Your task to perform on an android device: Open Google Chrome and click the shortcut for Amazon.com Image 0: 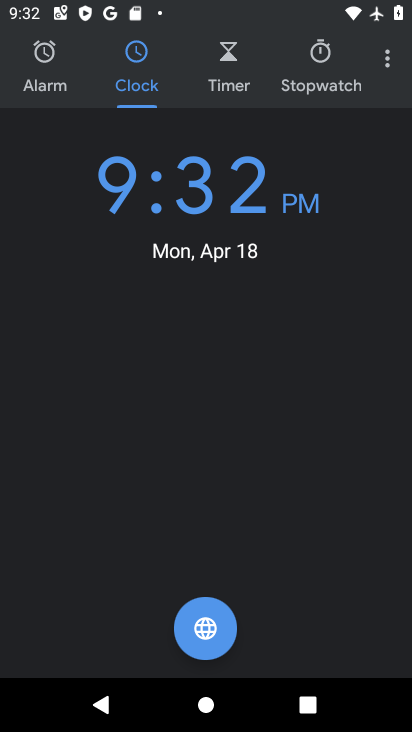
Step 0: press home button
Your task to perform on an android device: Open Google Chrome and click the shortcut for Amazon.com Image 1: 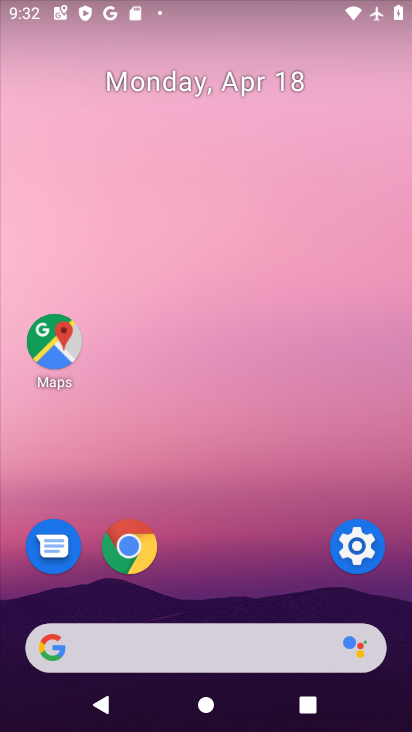
Step 1: click (125, 558)
Your task to perform on an android device: Open Google Chrome and click the shortcut for Amazon.com Image 2: 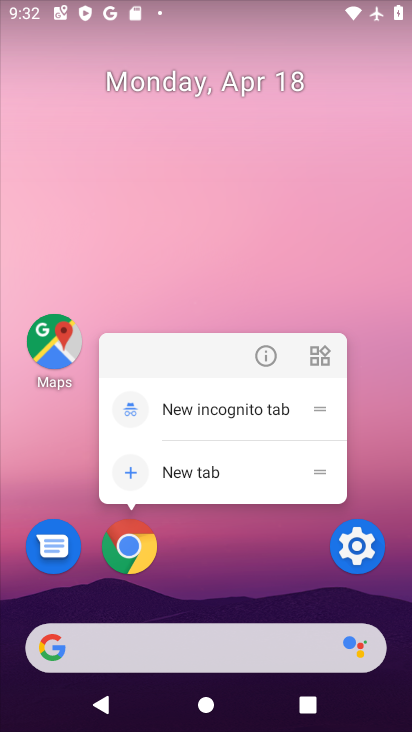
Step 2: click (133, 560)
Your task to perform on an android device: Open Google Chrome and click the shortcut for Amazon.com Image 3: 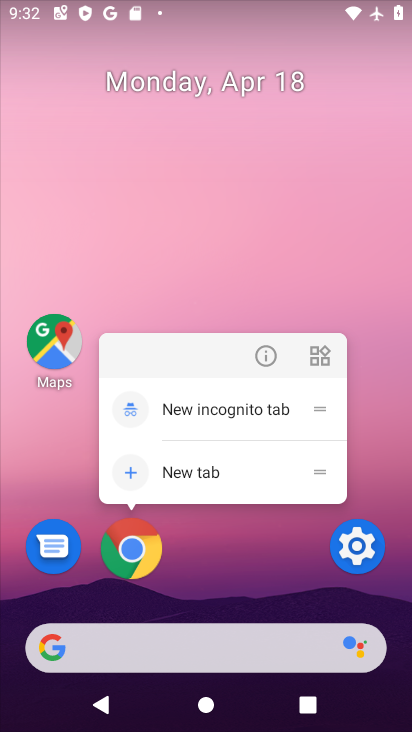
Step 3: click (134, 562)
Your task to perform on an android device: Open Google Chrome and click the shortcut for Amazon.com Image 4: 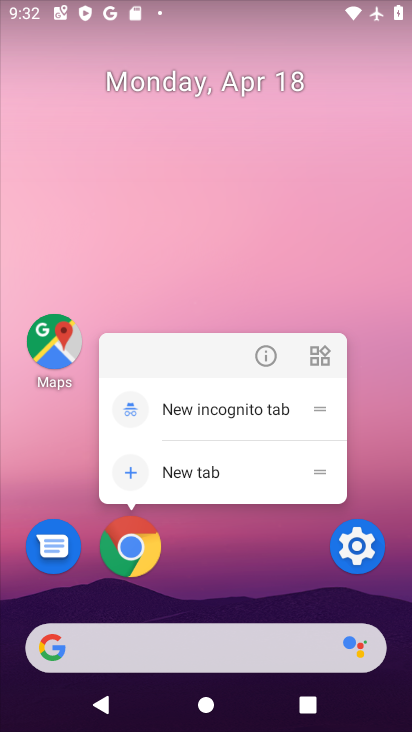
Step 4: click (134, 562)
Your task to perform on an android device: Open Google Chrome and click the shortcut for Amazon.com Image 5: 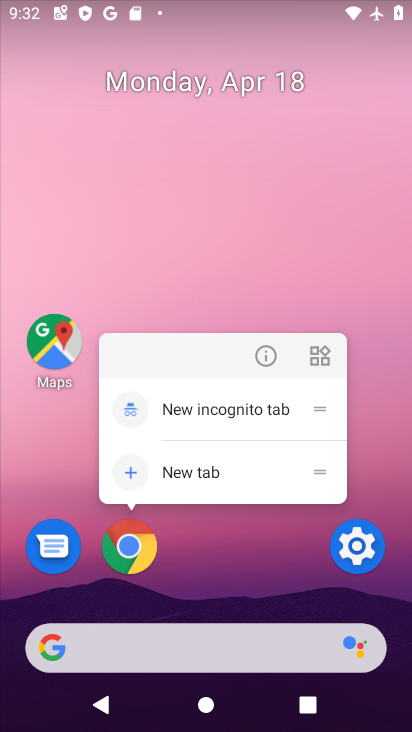
Step 5: click (237, 578)
Your task to perform on an android device: Open Google Chrome and click the shortcut for Amazon.com Image 6: 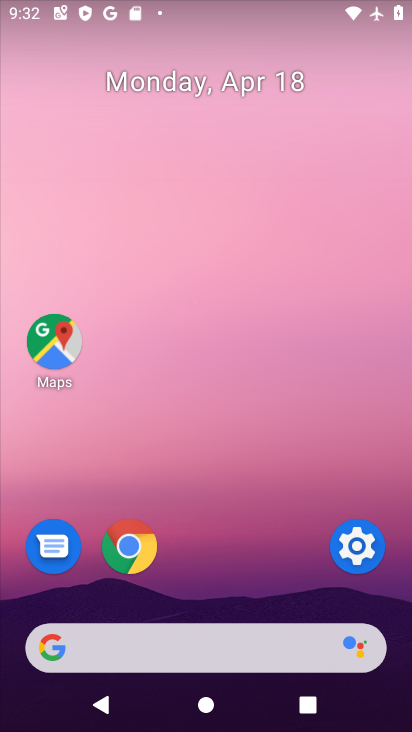
Step 6: click (150, 549)
Your task to perform on an android device: Open Google Chrome and click the shortcut for Amazon.com Image 7: 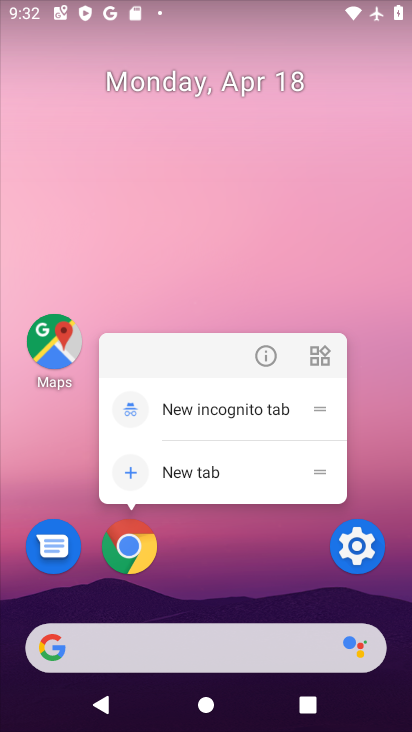
Step 7: click (131, 555)
Your task to perform on an android device: Open Google Chrome and click the shortcut for Amazon.com Image 8: 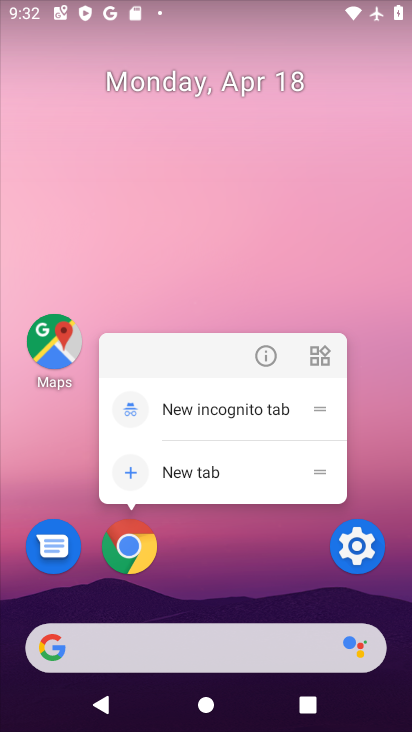
Step 8: click (130, 555)
Your task to perform on an android device: Open Google Chrome and click the shortcut for Amazon.com Image 9: 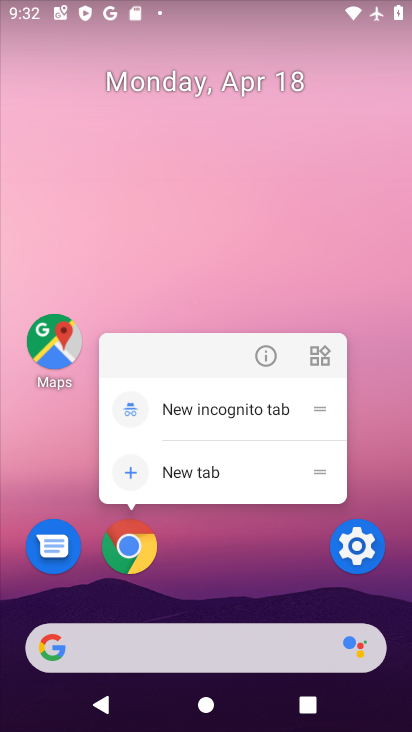
Step 9: click (130, 555)
Your task to perform on an android device: Open Google Chrome and click the shortcut for Amazon.com Image 10: 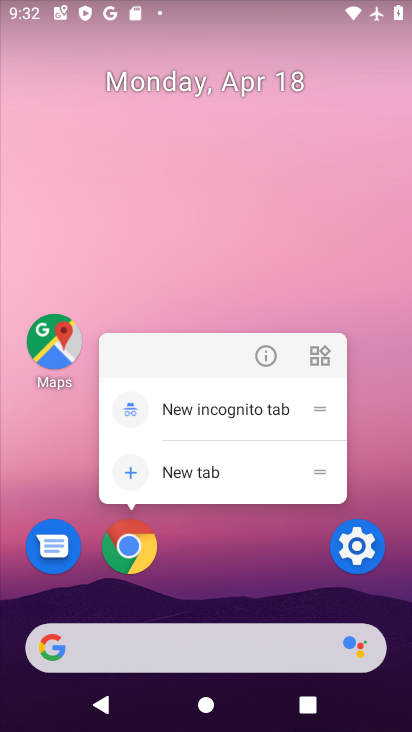
Step 10: click (130, 555)
Your task to perform on an android device: Open Google Chrome and click the shortcut for Amazon.com Image 11: 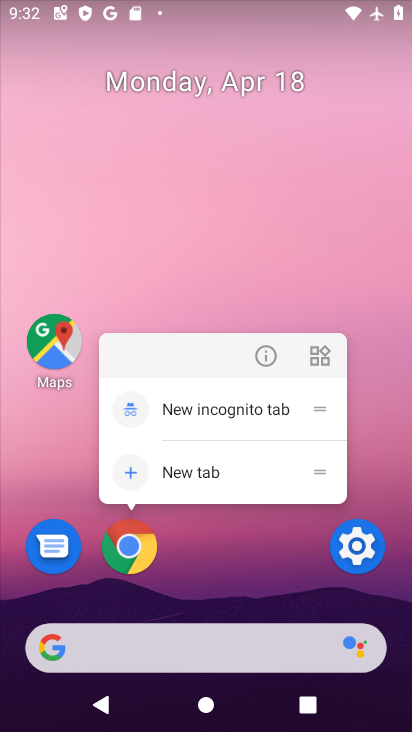
Step 11: click (130, 555)
Your task to perform on an android device: Open Google Chrome and click the shortcut for Amazon.com Image 12: 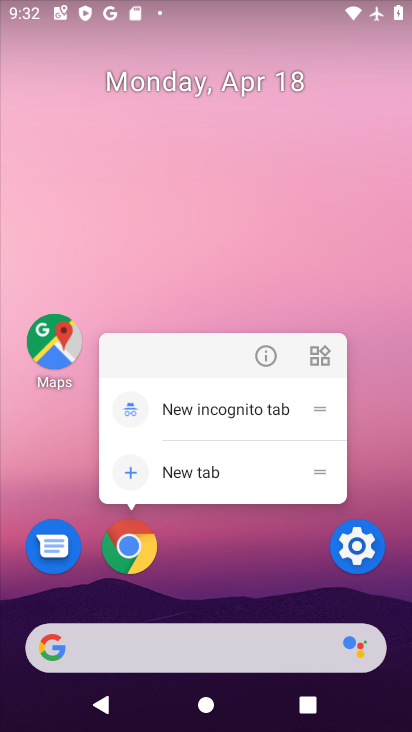
Step 12: click (129, 556)
Your task to perform on an android device: Open Google Chrome and click the shortcut for Amazon.com Image 13: 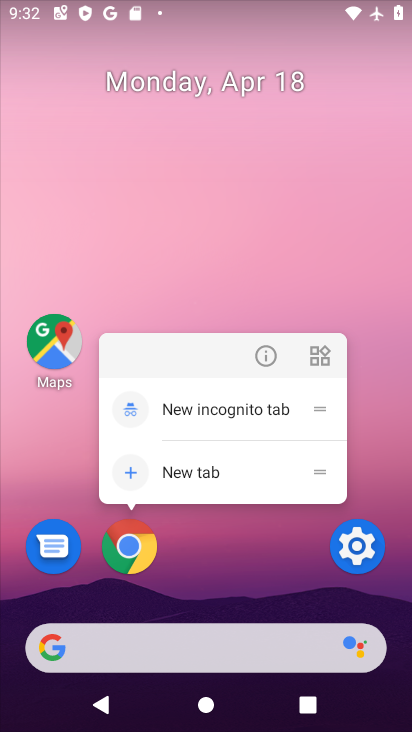
Step 13: click (144, 567)
Your task to perform on an android device: Open Google Chrome and click the shortcut for Amazon.com Image 14: 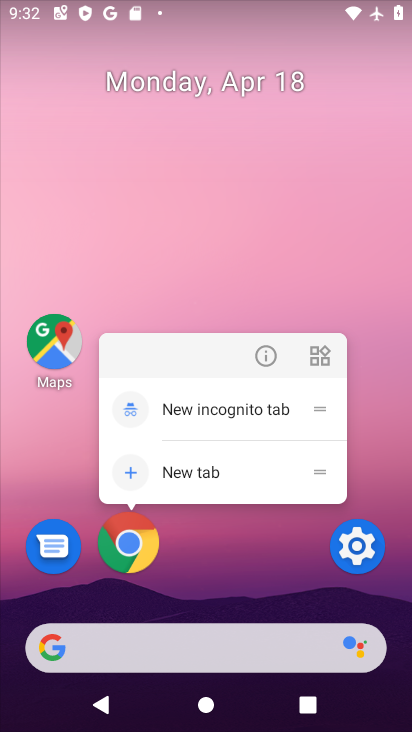
Step 14: click (142, 563)
Your task to perform on an android device: Open Google Chrome and click the shortcut for Amazon.com Image 15: 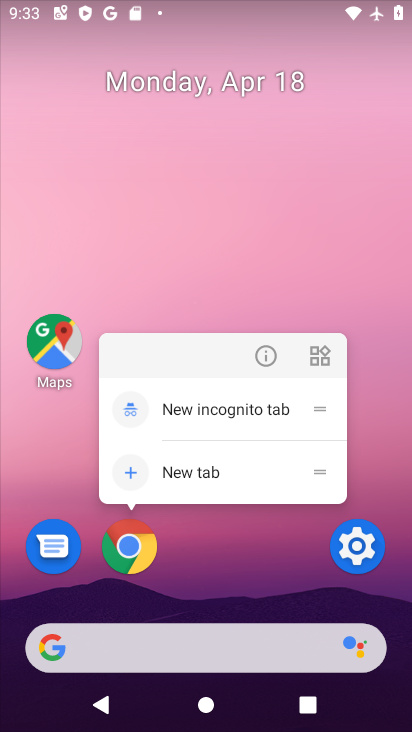
Step 15: click (212, 563)
Your task to perform on an android device: Open Google Chrome and click the shortcut for Amazon.com Image 16: 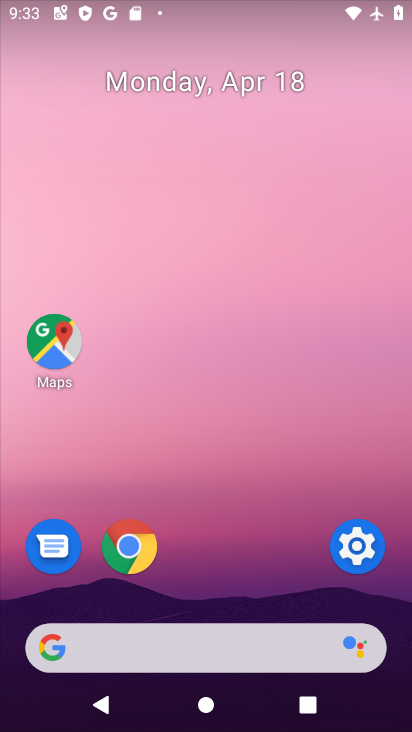
Step 16: click (127, 545)
Your task to perform on an android device: Open Google Chrome and click the shortcut for Amazon.com Image 17: 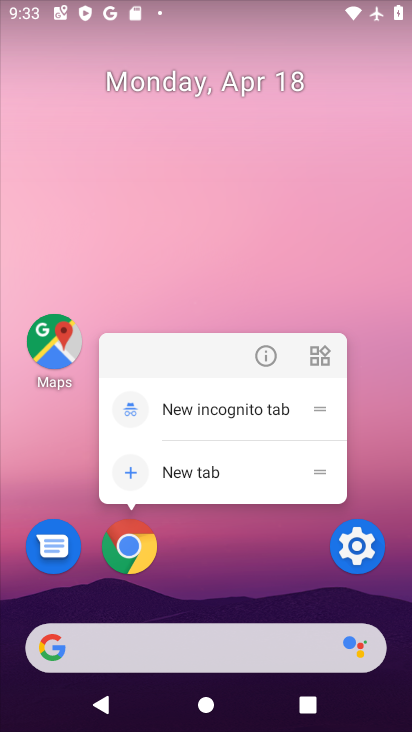
Step 17: click (136, 563)
Your task to perform on an android device: Open Google Chrome and click the shortcut for Amazon.com Image 18: 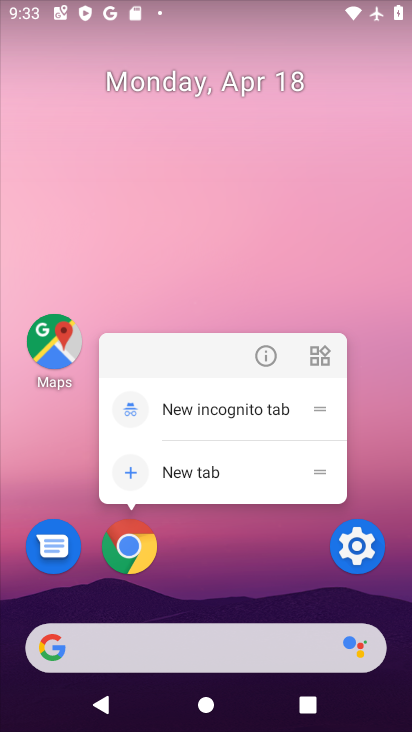
Step 18: click (136, 563)
Your task to perform on an android device: Open Google Chrome and click the shortcut for Amazon.com Image 19: 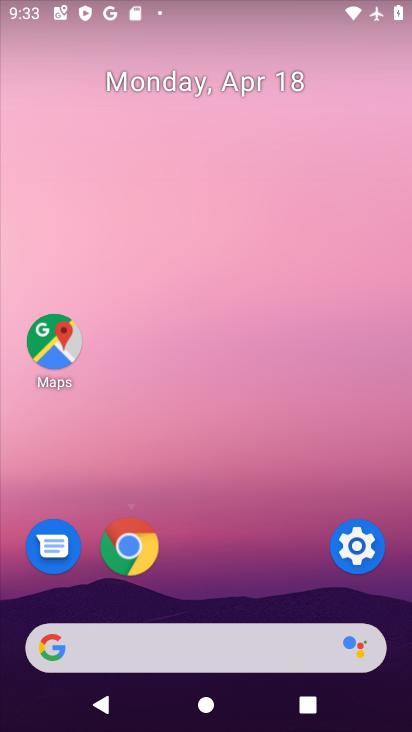
Step 19: click (136, 563)
Your task to perform on an android device: Open Google Chrome and click the shortcut for Amazon.com Image 20: 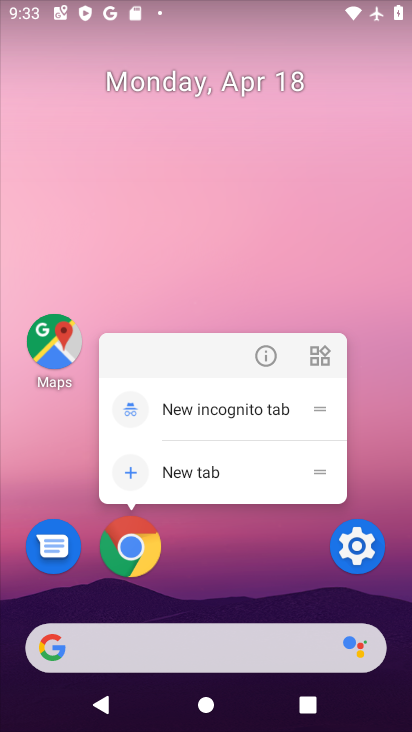
Step 20: click (136, 563)
Your task to perform on an android device: Open Google Chrome and click the shortcut for Amazon.com Image 21: 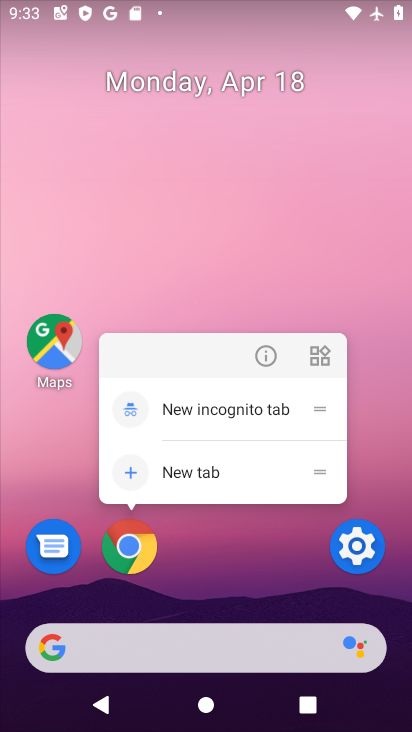
Step 21: click (142, 559)
Your task to perform on an android device: Open Google Chrome and click the shortcut for Amazon.com Image 22: 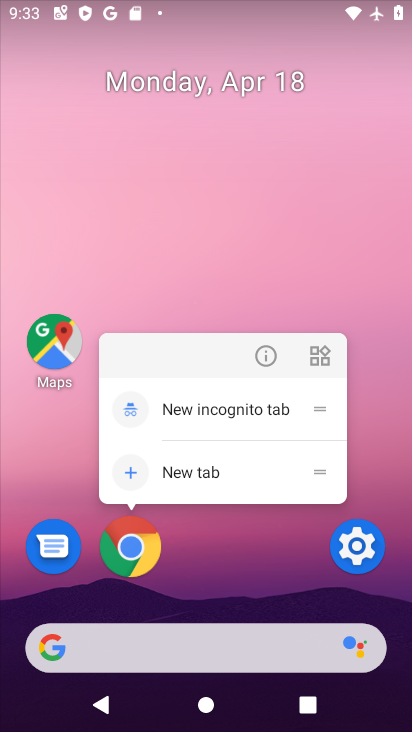
Step 22: click (142, 559)
Your task to perform on an android device: Open Google Chrome and click the shortcut for Amazon.com Image 23: 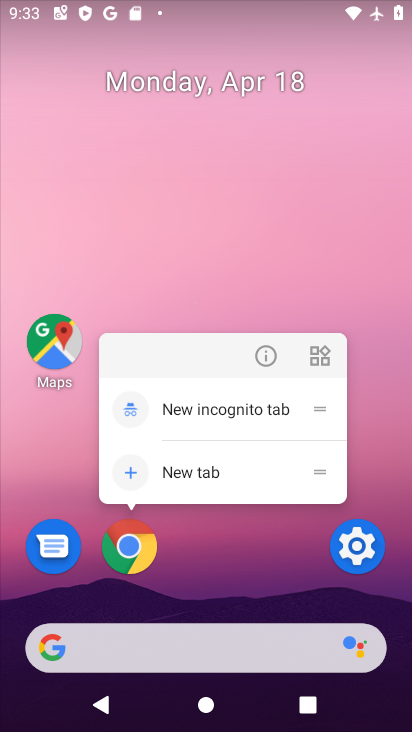
Step 23: click (137, 553)
Your task to perform on an android device: Open Google Chrome and click the shortcut for Amazon.com Image 24: 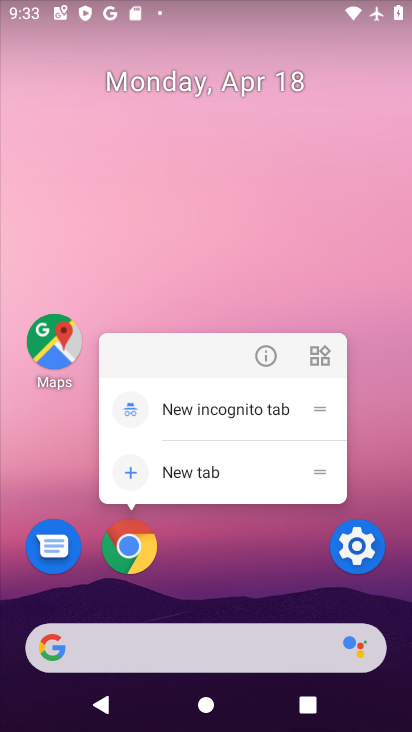
Step 24: click (138, 547)
Your task to perform on an android device: Open Google Chrome and click the shortcut for Amazon.com Image 25: 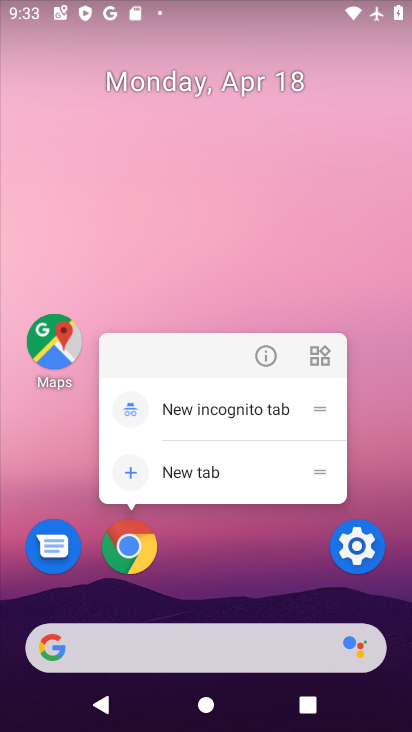
Step 25: click (138, 547)
Your task to perform on an android device: Open Google Chrome and click the shortcut for Amazon.com Image 26: 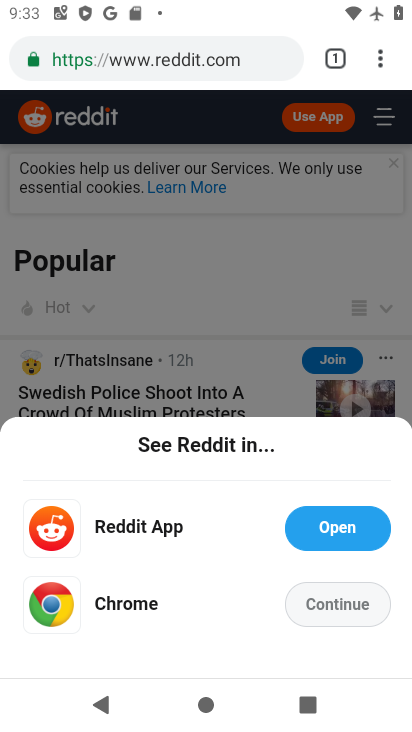
Step 26: click (338, 58)
Your task to perform on an android device: Open Google Chrome and click the shortcut for Amazon.com Image 27: 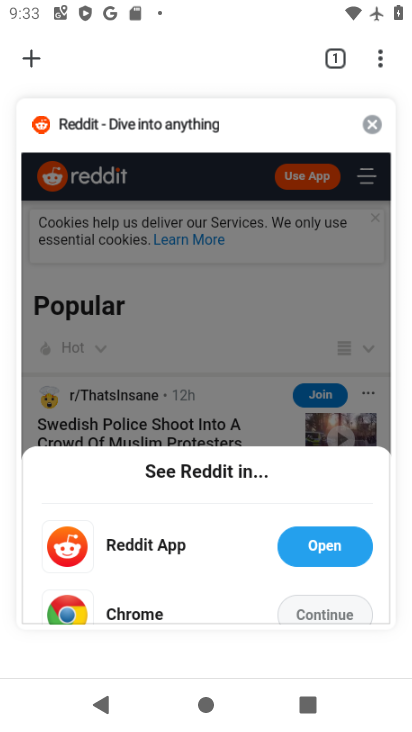
Step 27: click (28, 64)
Your task to perform on an android device: Open Google Chrome and click the shortcut for Amazon.com Image 28: 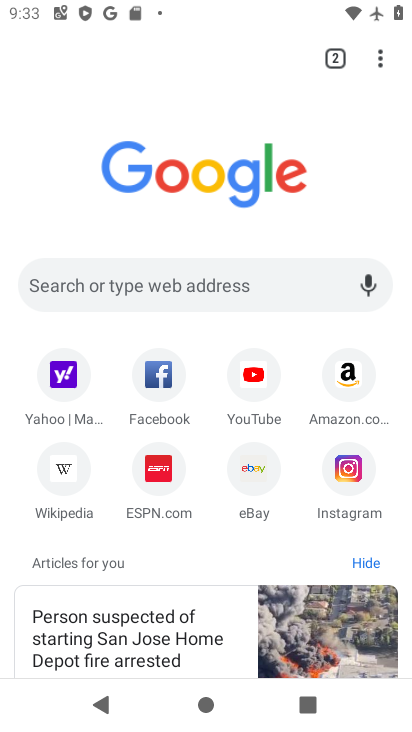
Step 28: click (315, 378)
Your task to perform on an android device: Open Google Chrome and click the shortcut for Amazon.com Image 29: 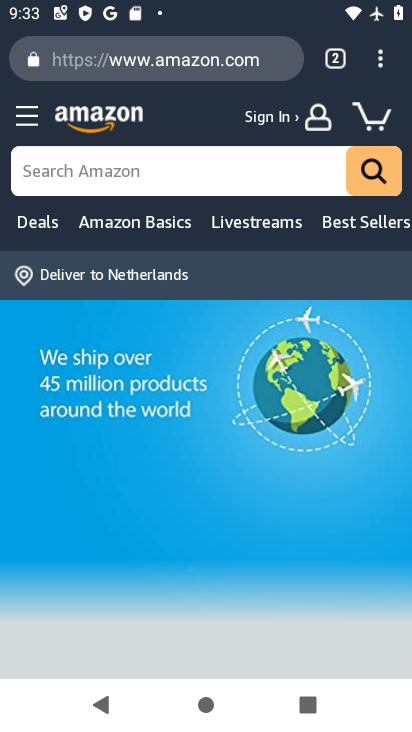
Step 29: task complete